Your task to perform on an android device: Open settings on Google Maps Image 0: 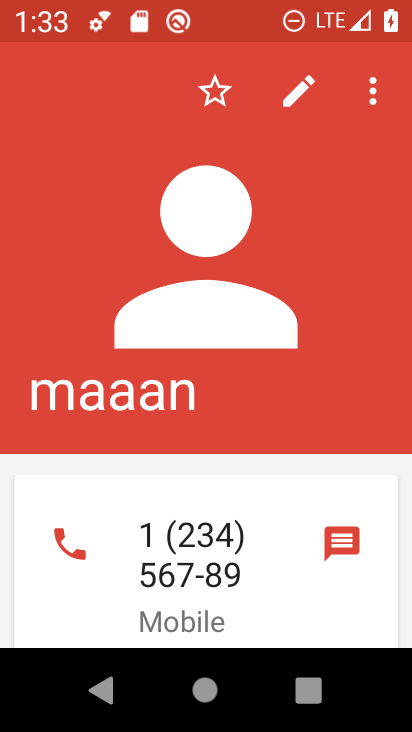
Step 0: press home button
Your task to perform on an android device: Open settings on Google Maps Image 1: 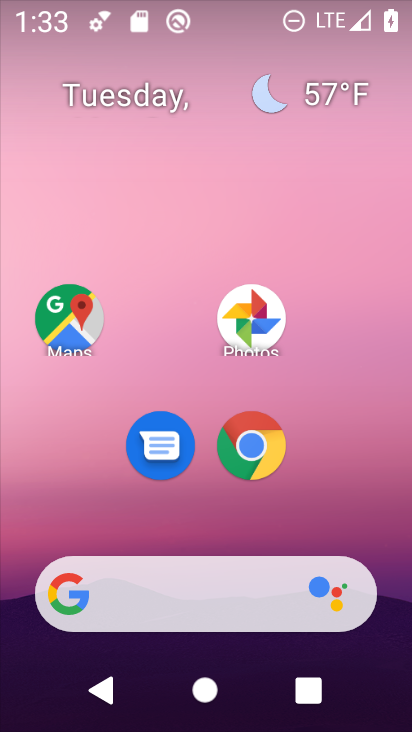
Step 1: drag from (364, 509) to (349, 110)
Your task to perform on an android device: Open settings on Google Maps Image 2: 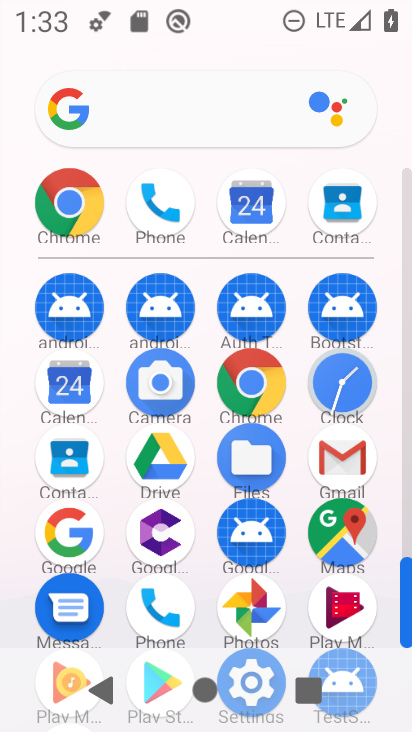
Step 2: drag from (384, 611) to (380, 336)
Your task to perform on an android device: Open settings on Google Maps Image 3: 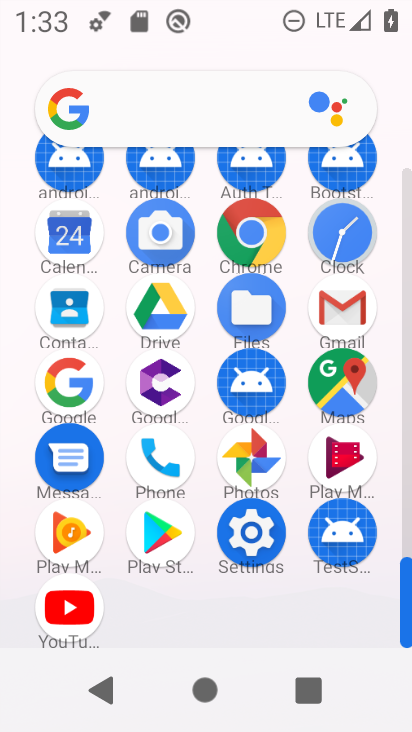
Step 3: click (337, 388)
Your task to perform on an android device: Open settings on Google Maps Image 4: 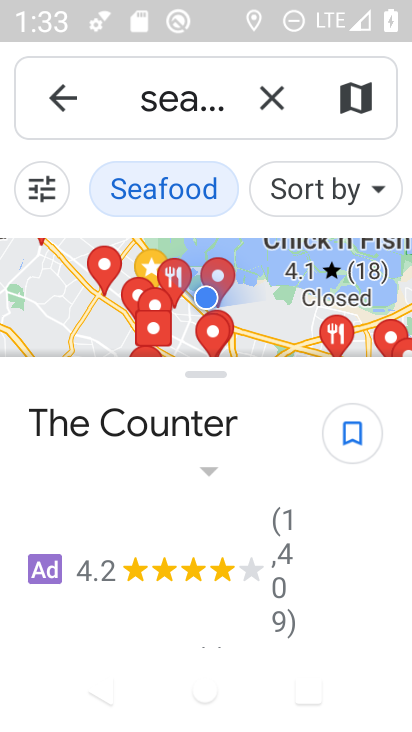
Step 4: click (57, 99)
Your task to perform on an android device: Open settings on Google Maps Image 5: 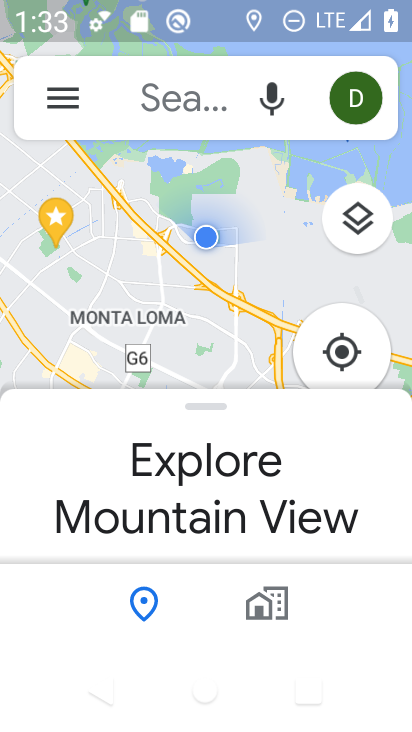
Step 5: click (57, 99)
Your task to perform on an android device: Open settings on Google Maps Image 6: 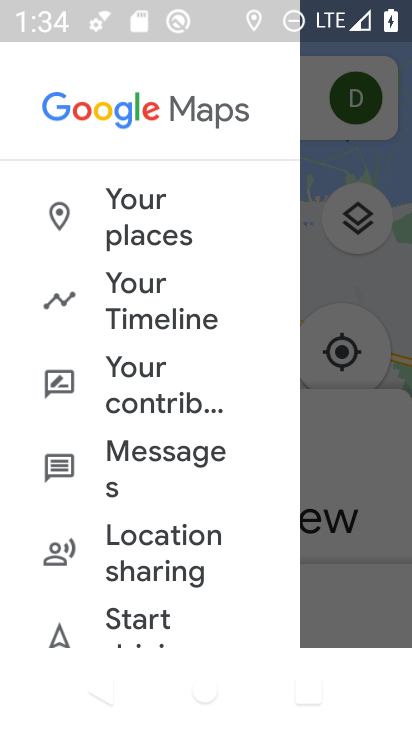
Step 6: drag from (248, 524) to (237, 310)
Your task to perform on an android device: Open settings on Google Maps Image 7: 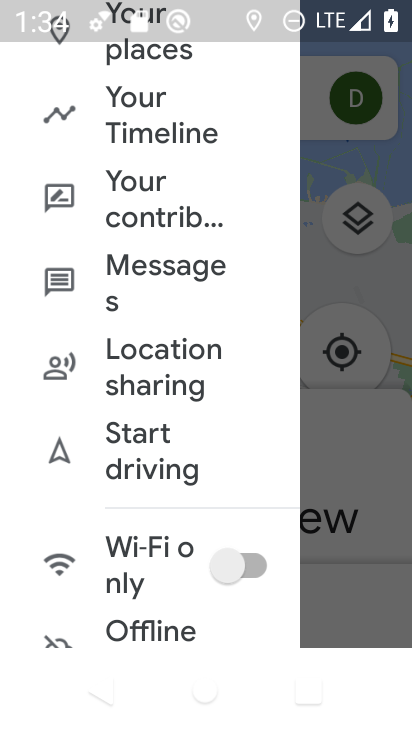
Step 7: drag from (185, 597) to (192, 381)
Your task to perform on an android device: Open settings on Google Maps Image 8: 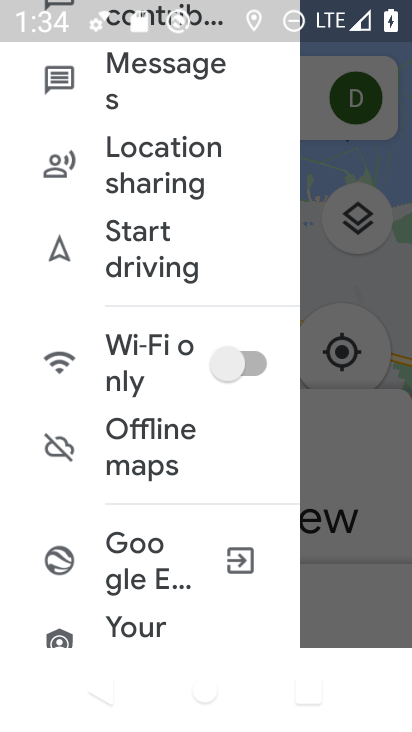
Step 8: drag from (212, 606) to (213, 377)
Your task to perform on an android device: Open settings on Google Maps Image 9: 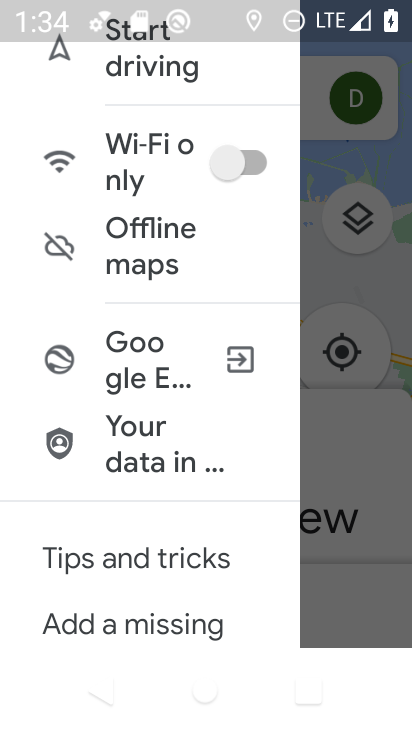
Step 9: drag from (230, 598) to (247, 342)
Your task to perform on an android device: Open settings on Google Maps Image 10: 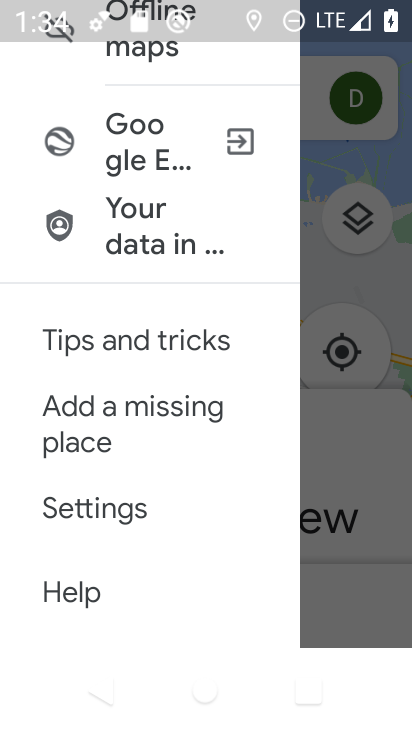
Step 10: click (98, 518)
Your task to perform on an android device: Open settings on Google Maps Image 11: 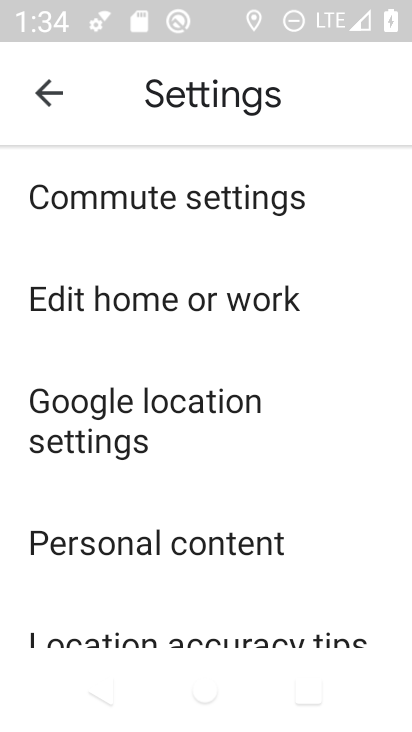
Step 11: task complete